Your task to perform on an android device: open app "Google Drive" Image 0: 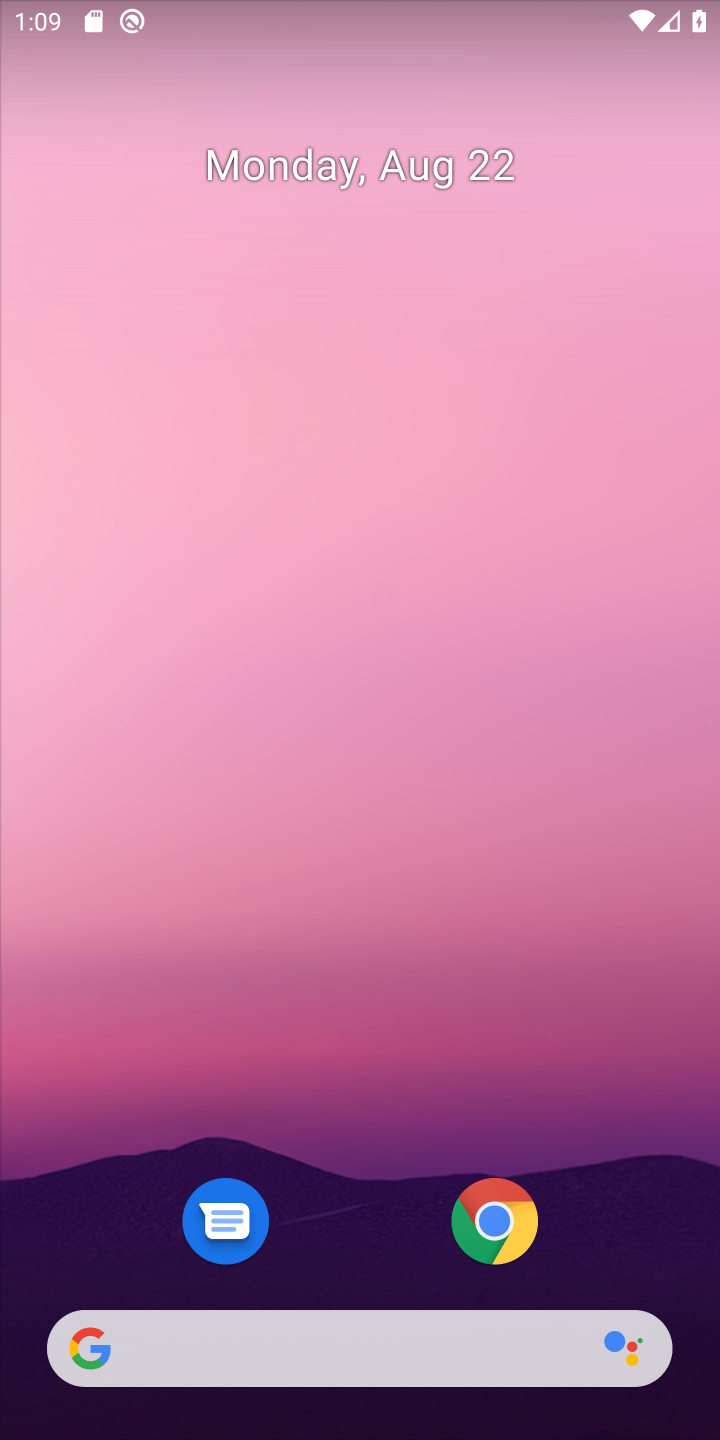
Step 0: press home button
Your task to perform on an android device: open app "Google Drive" Image 1: 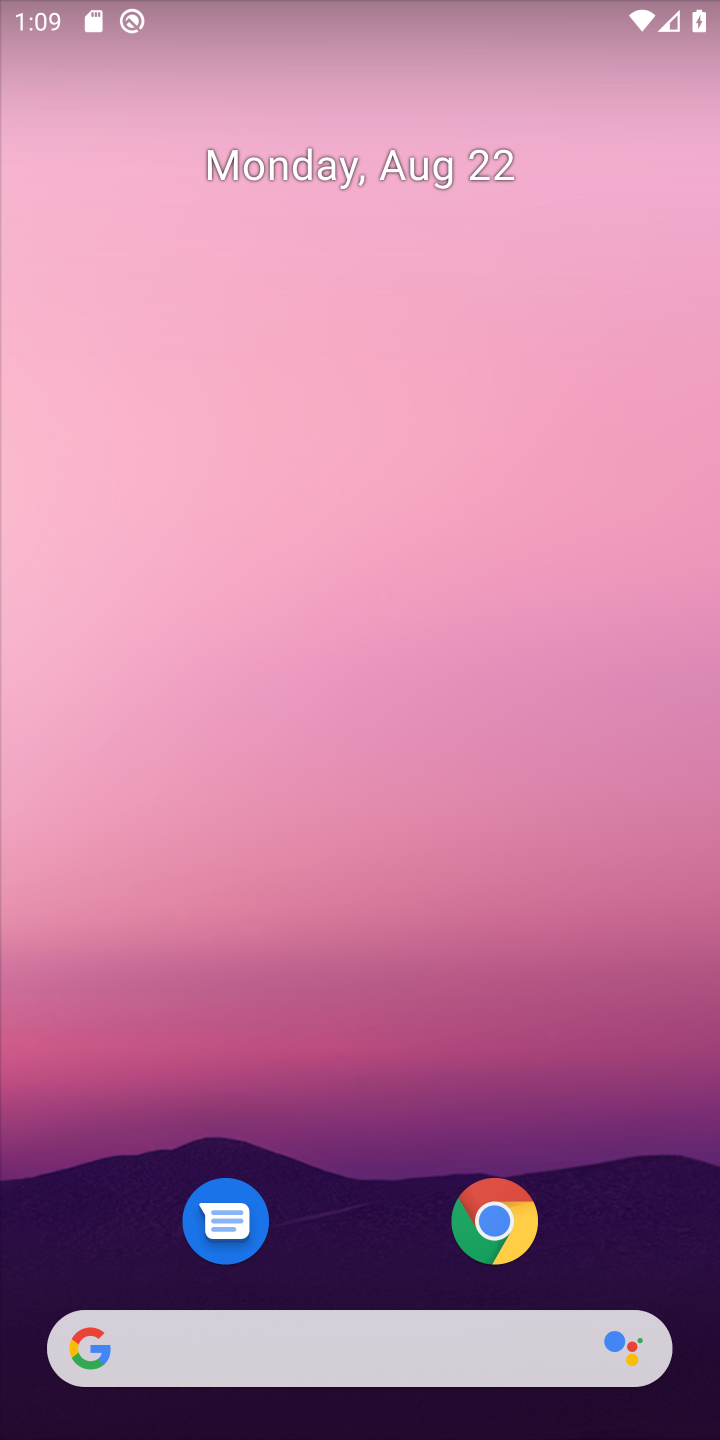
Step 1: drag from (370, 798) to (362, 254)
Your task to perform on an android device: open app "Google Drive" Image 2: 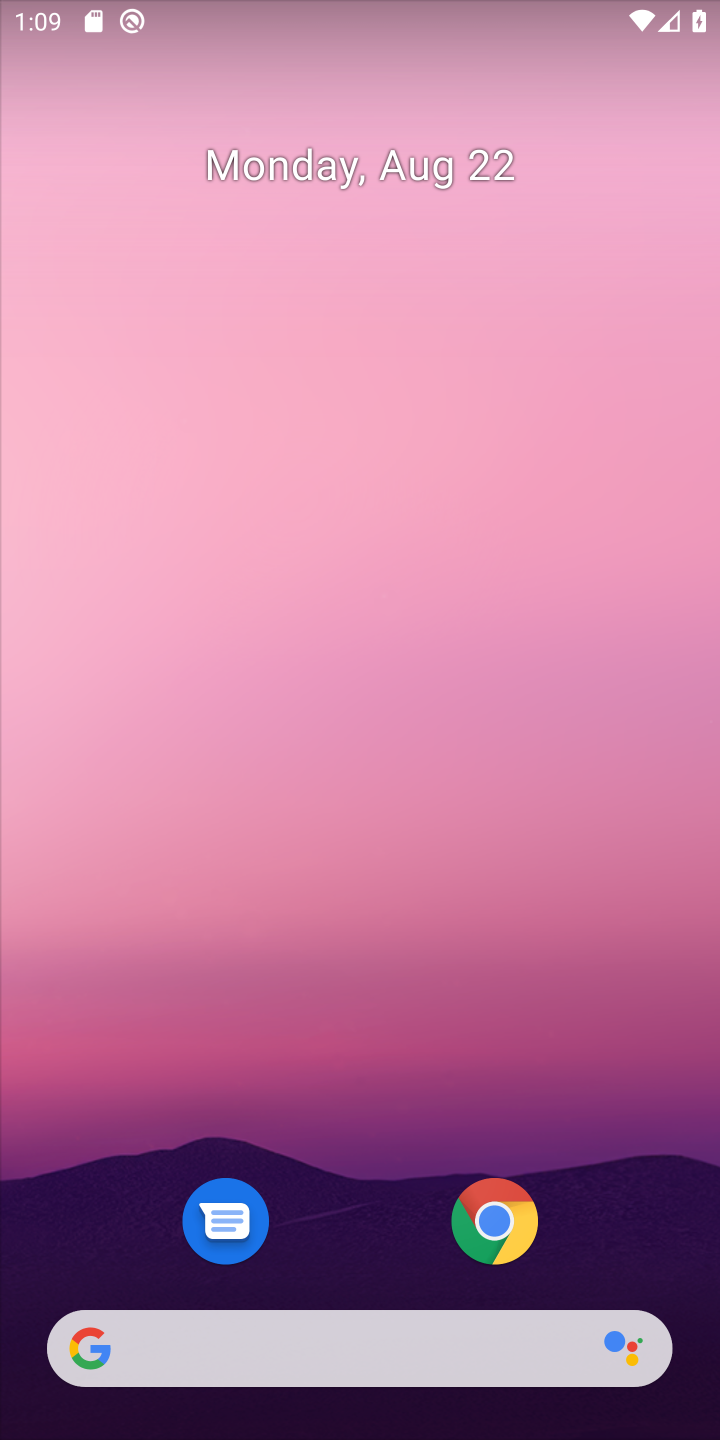
Step 2: drag from (368, 1270) to (291, 187)
Your task to perform on an android device: open app "Google Drive" Image 3: 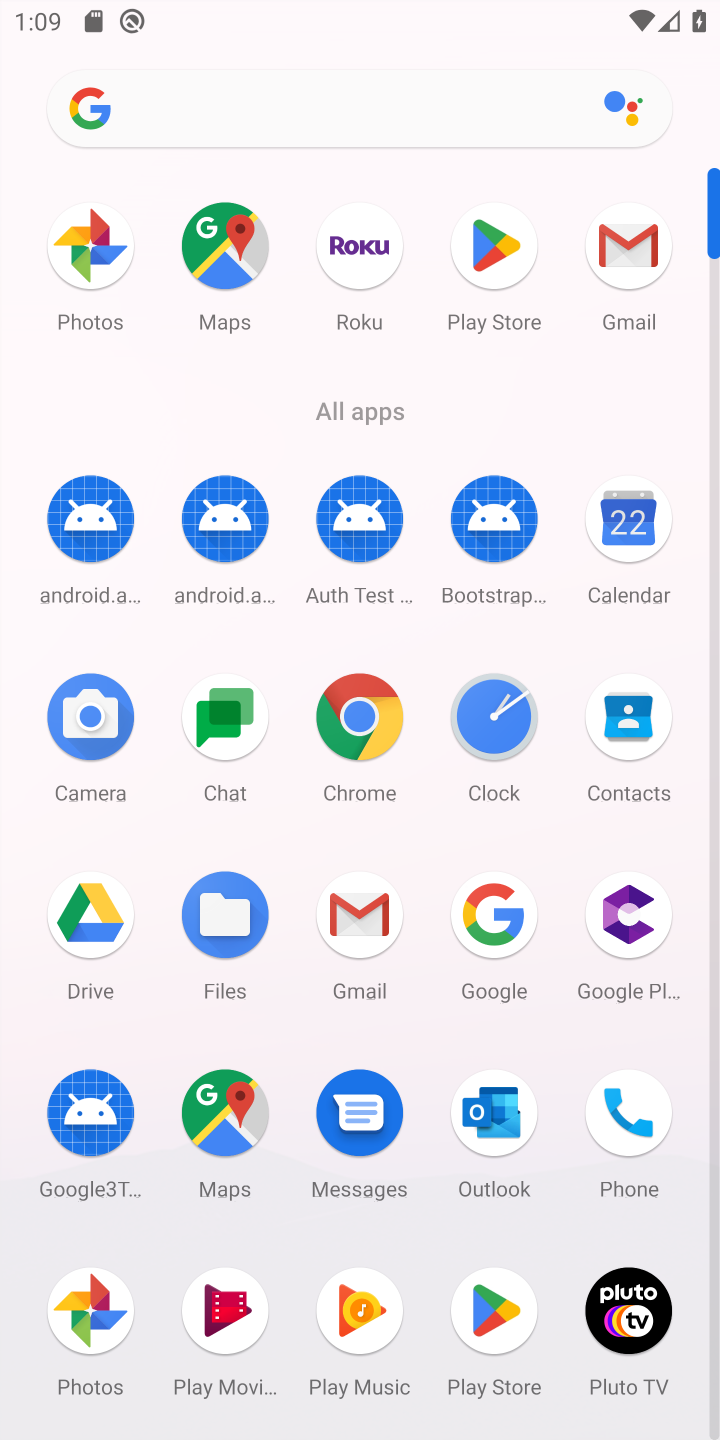
Step 3: click (496, 237)
Your task to perform on an android device: open app "Google Drive" Image 4: 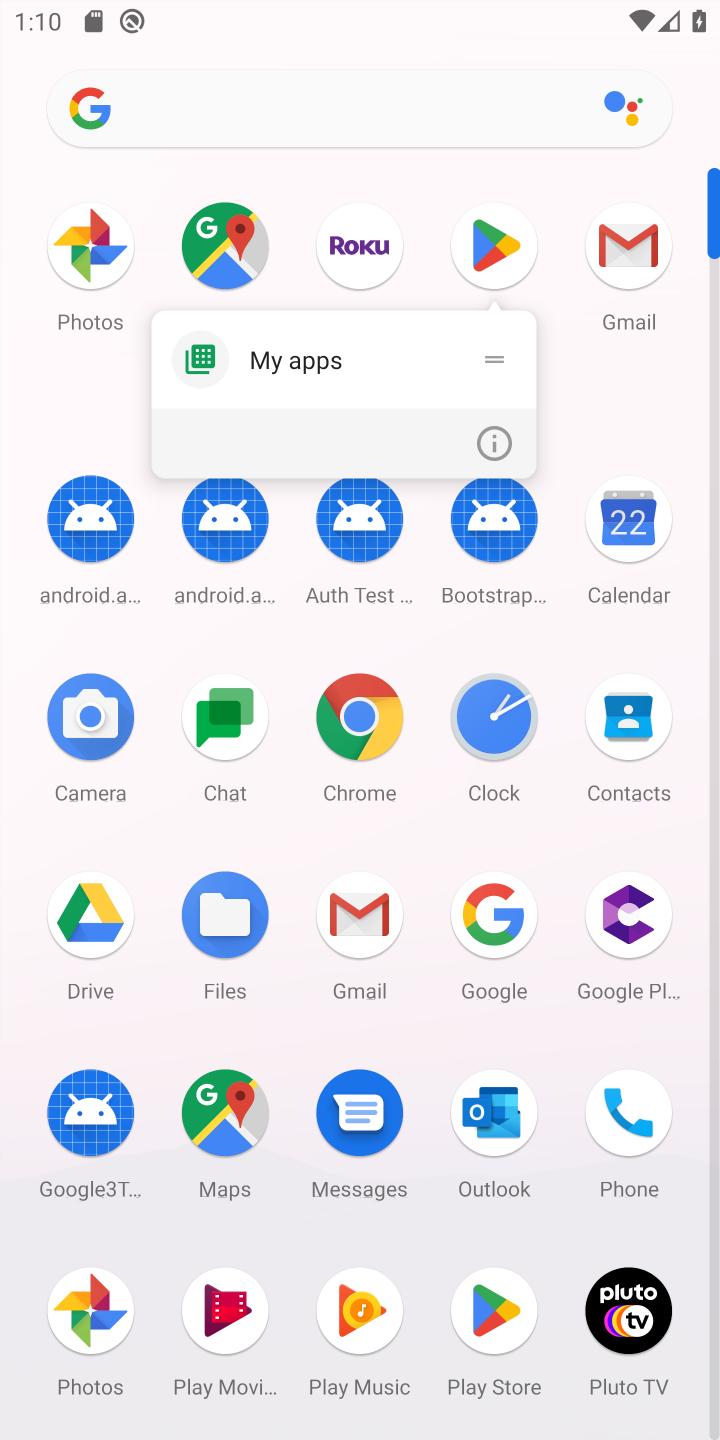
Step 4: click (492, 1304)
Your task to perform on an android device: open app "Google Drive" Image 5: 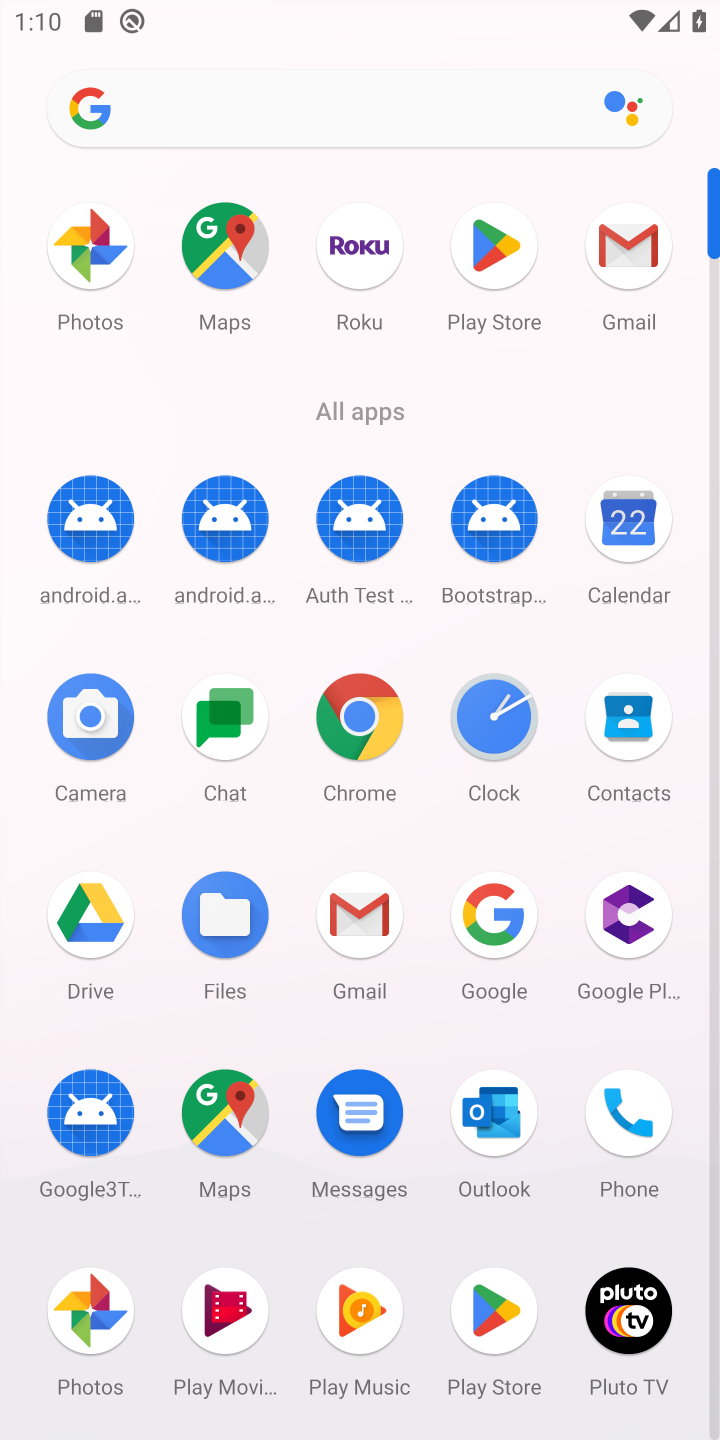
Step 5: click (501, 1305)
Your task to perform on an android device: open app "Google Drive" Image 6: 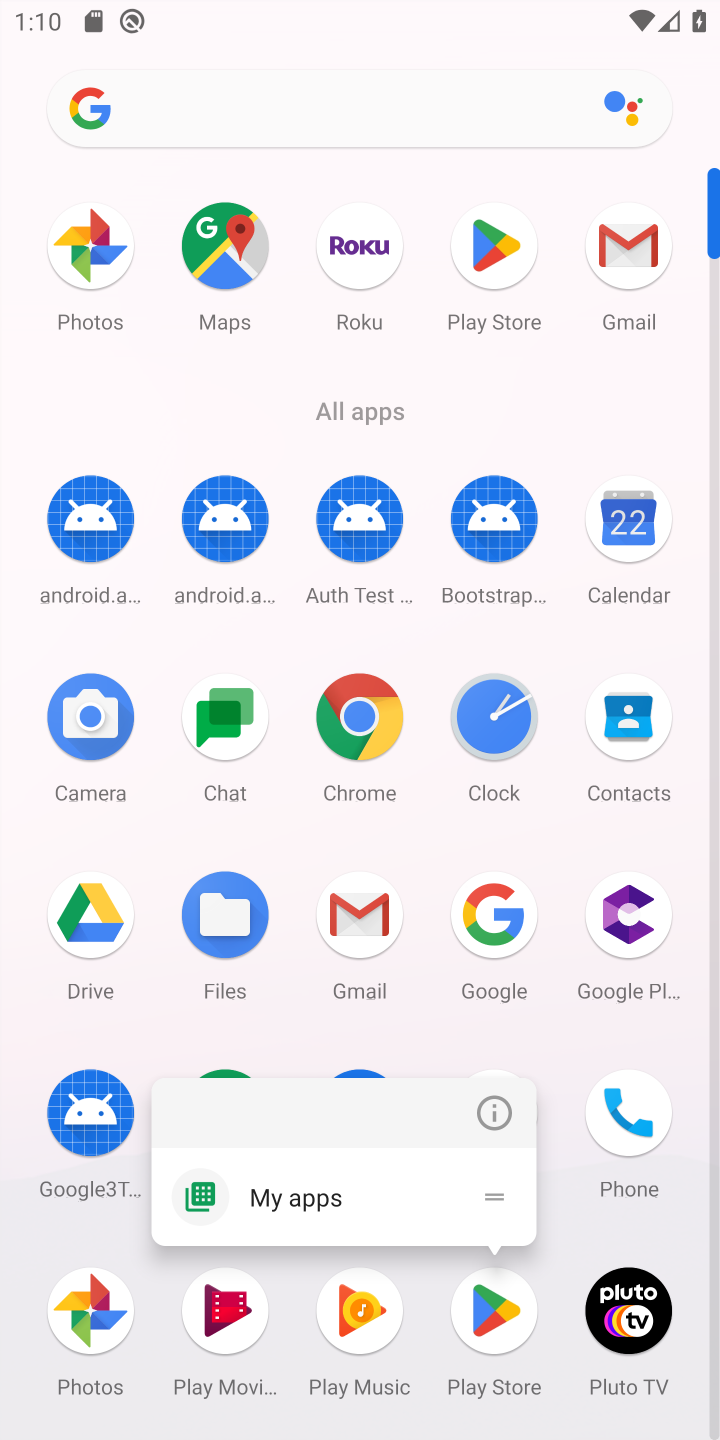
Step 6: click (501, 1305)
Your task to perform on an android device: open app "Google Drive" Image 7: 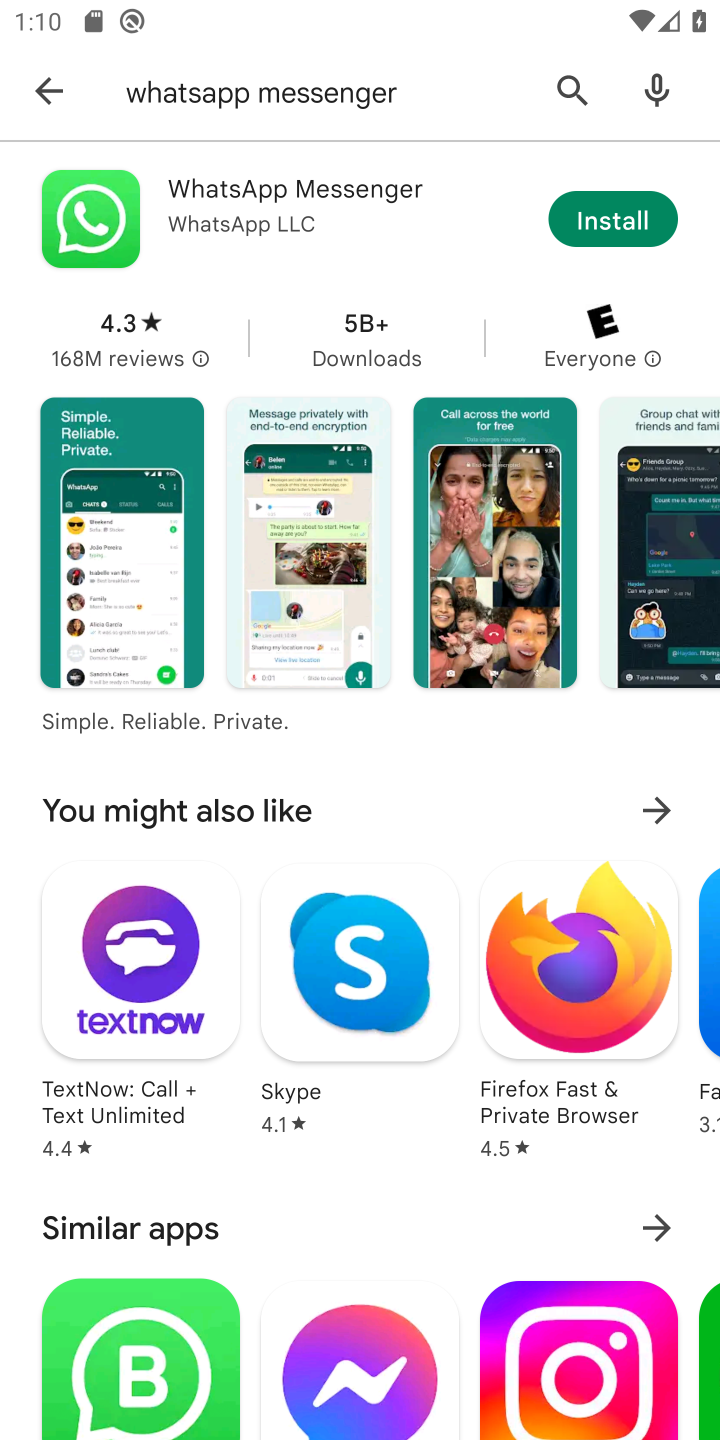
Step 7: click (573, 90)
Your task to perform on an android device: open app "Google Drive" Image 8: 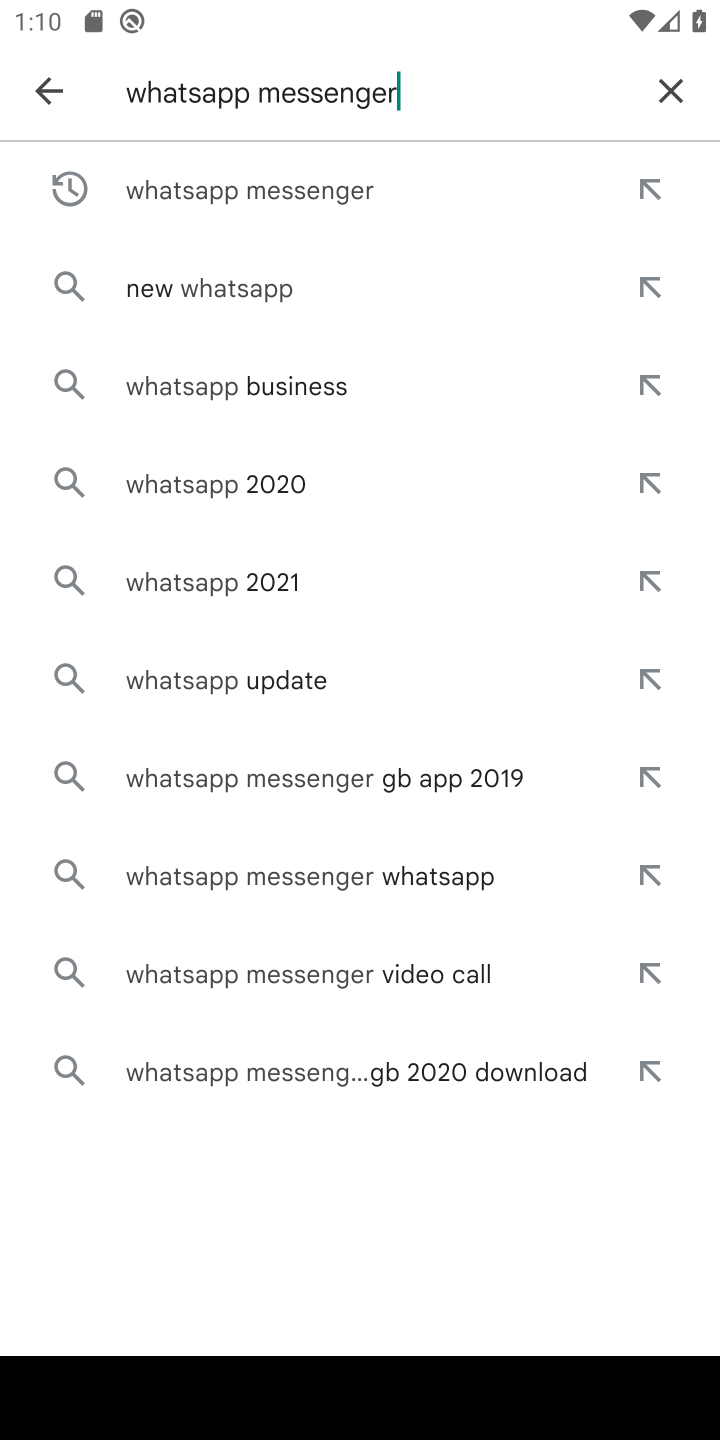
Step 8: click (671, 89)
Your task to perform on an android device: open app "Google Drive" Image 9: 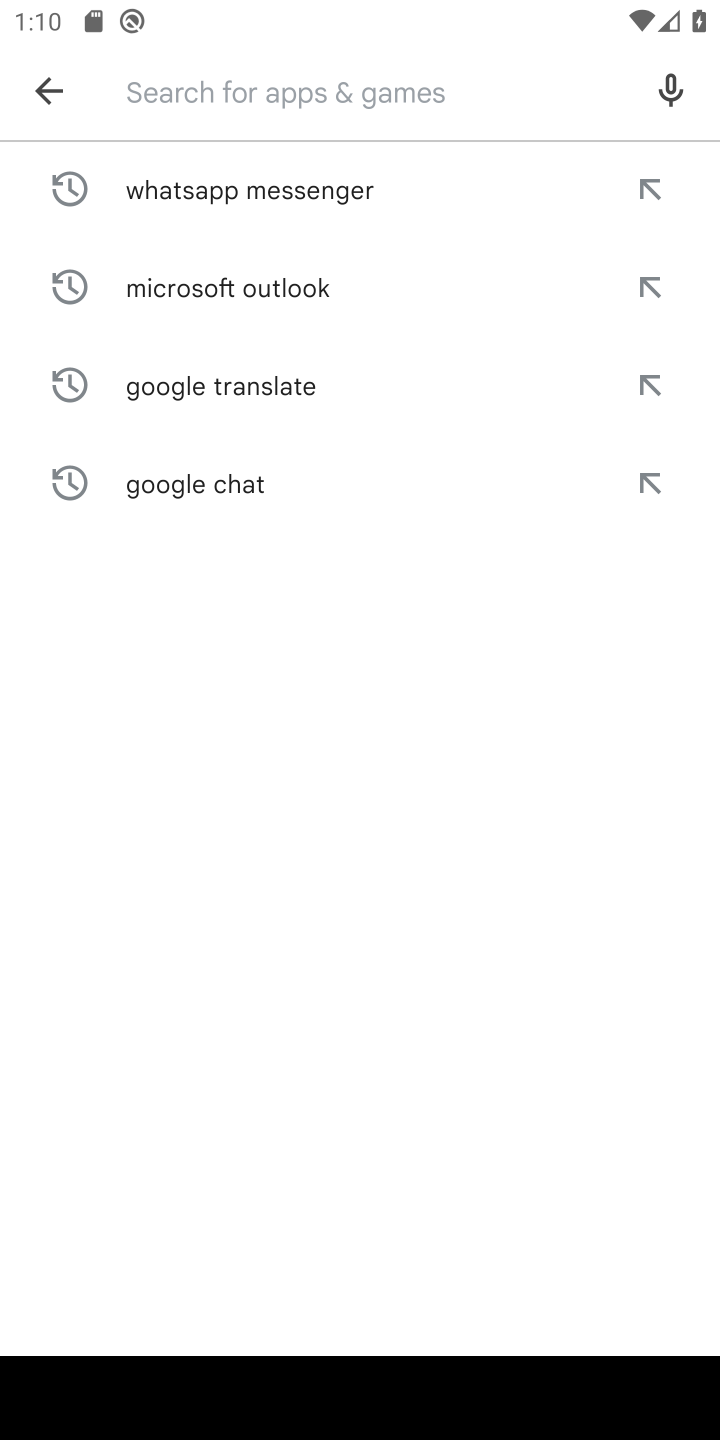
Step 9: type "Google Drive"
Your task to perform on an android device: open app "Google Drive" Image 10: 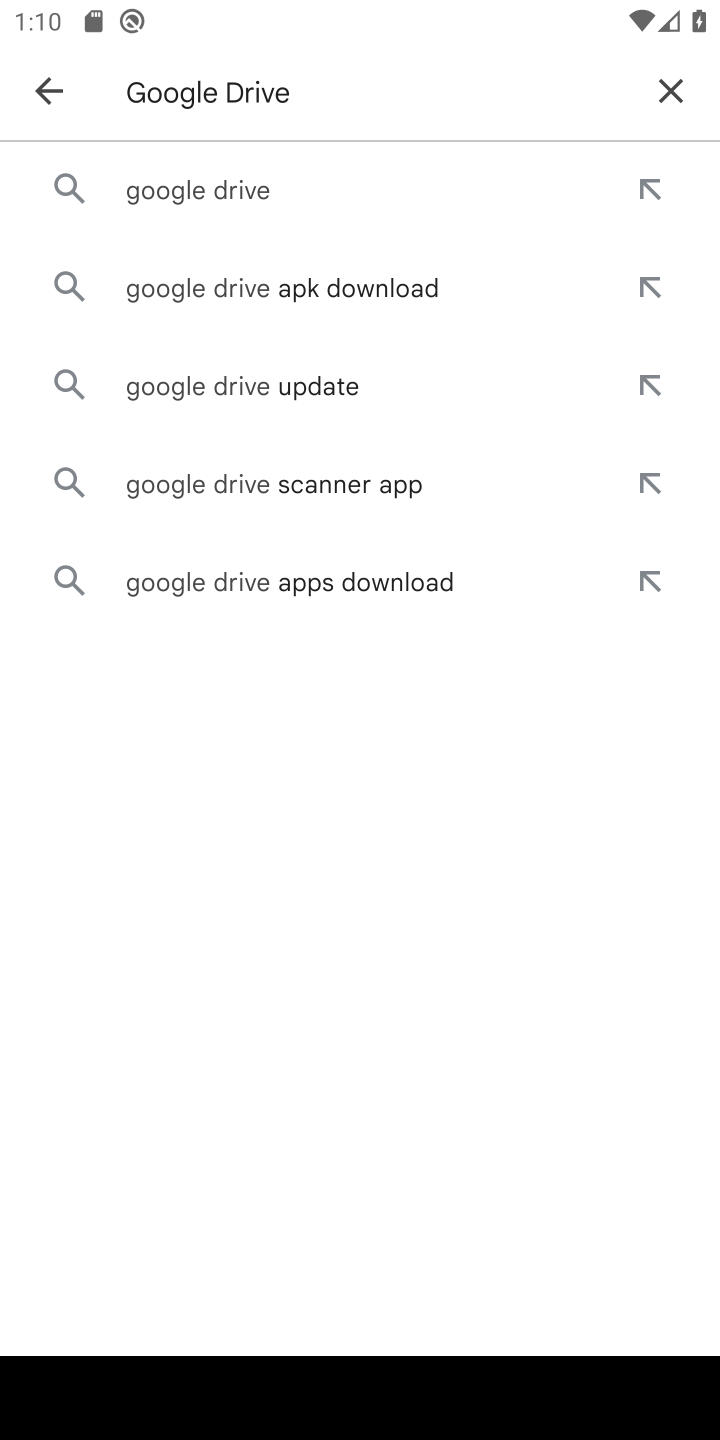
Step 10: click (279, 183)
Your task to perform on an android device: open app "Google Drive" Image 11: 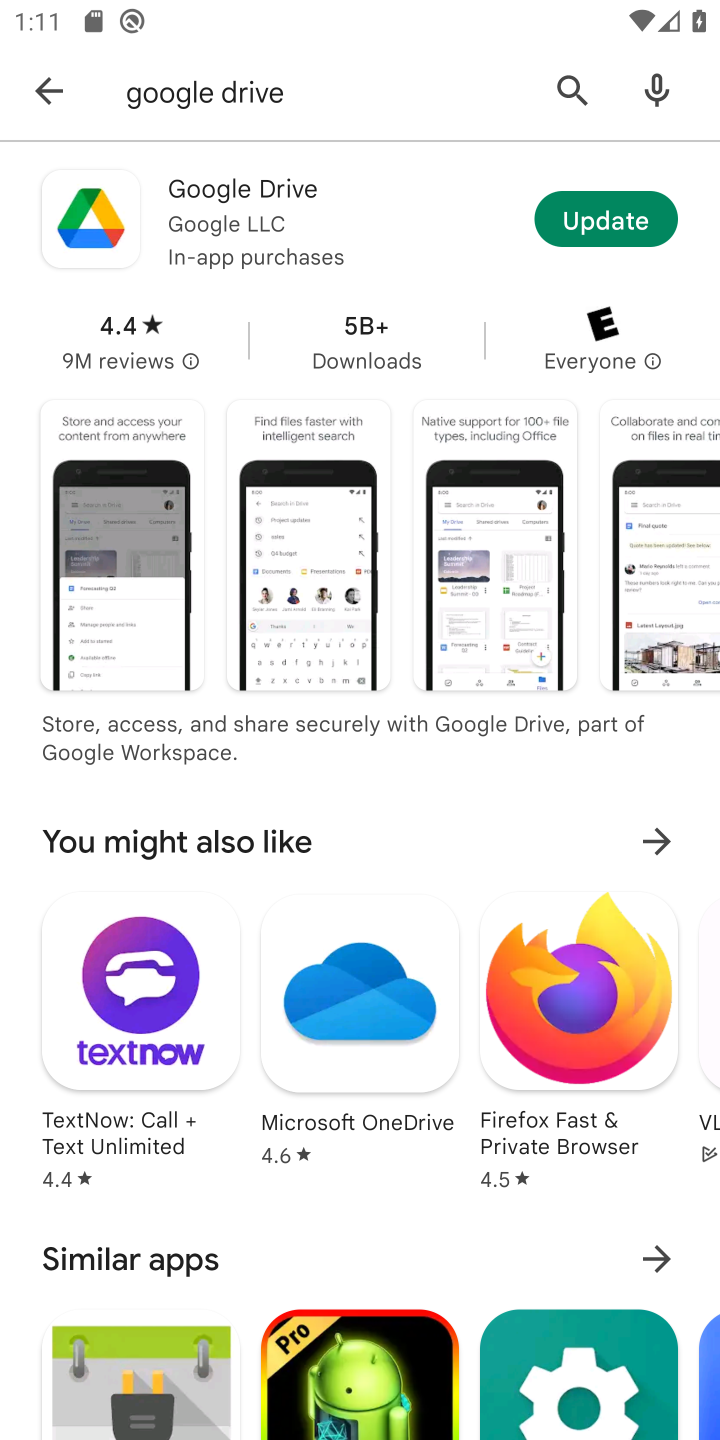
Step 11: click (610, 211)
Your task to perform on an android device: open app "Google Drive" Image 12: 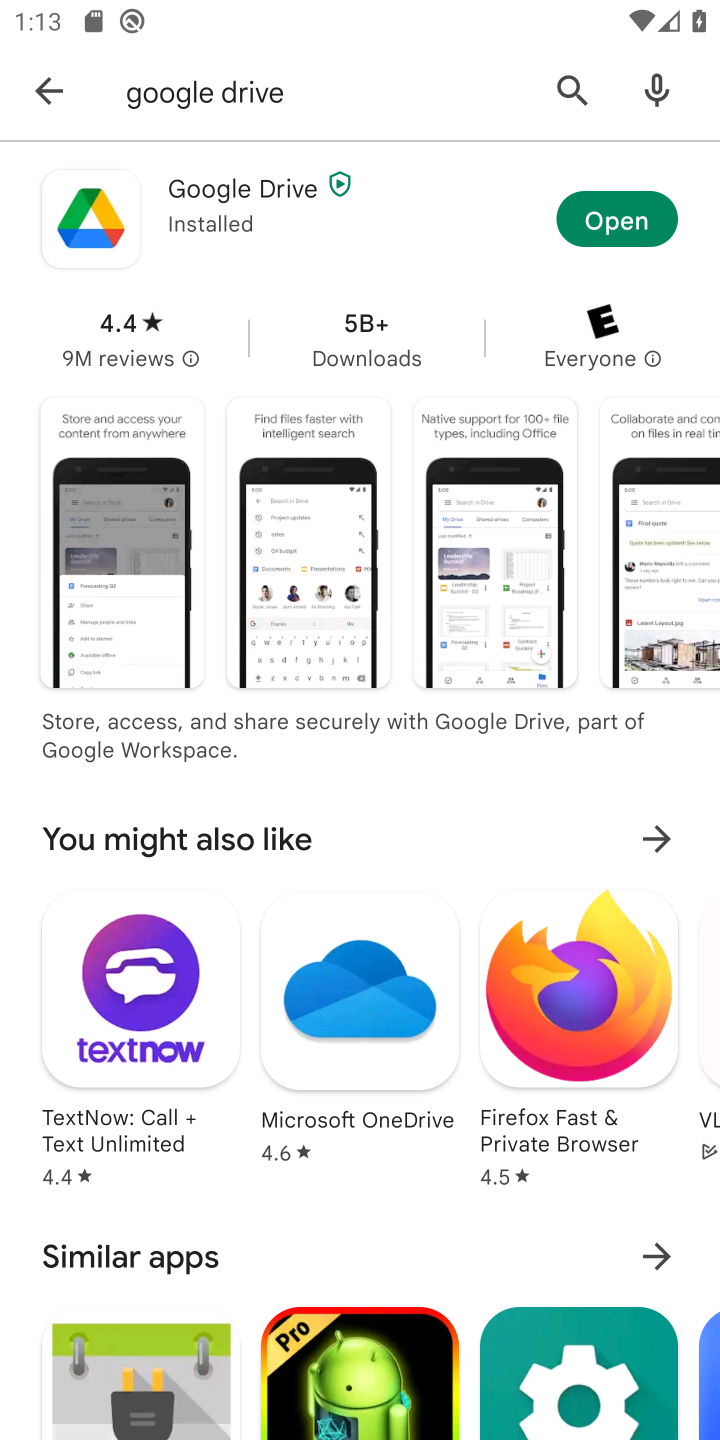
Step 12: click (645, 213)
Your task to perform on an android device: open app "Google Drive" Image 13: 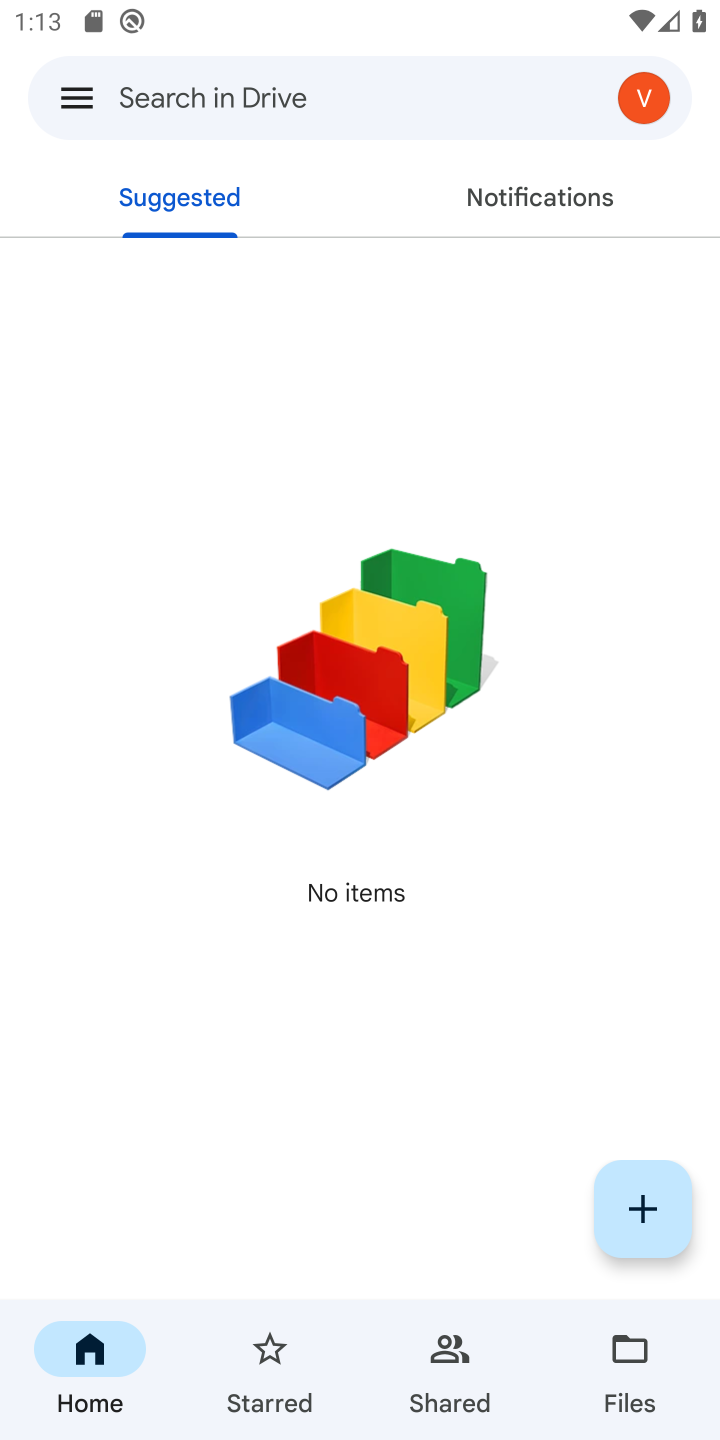
Step 13: task complete